Your task to perform on an android device: toggle javascript in the chrome app Image 0: 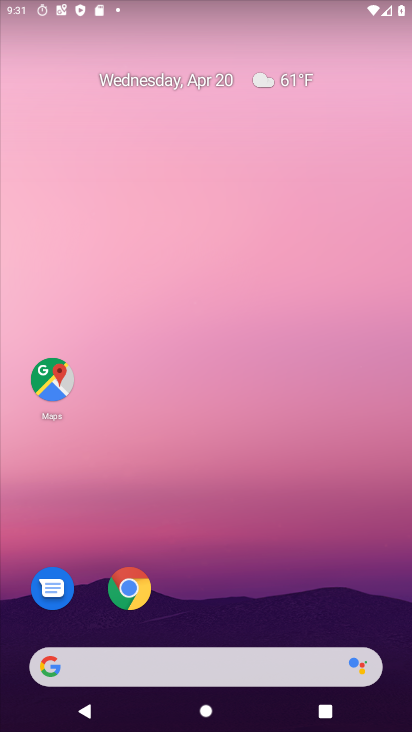
Step 0: drag from (224, 551) to (125, 38)
Your task to perform on an android device: toggle javascript in the chrome app Image 1: 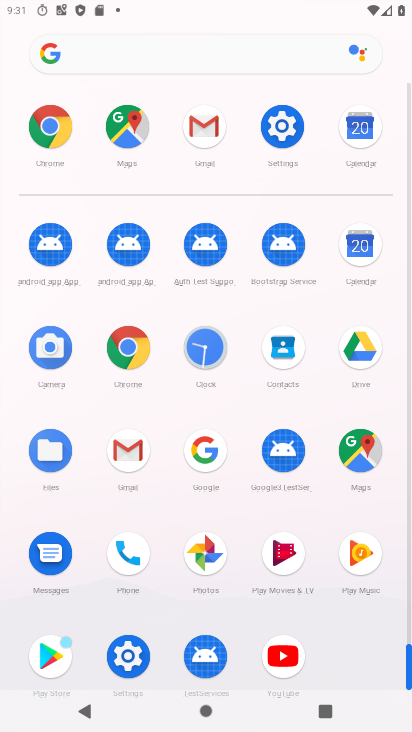
Step 1: click (48, 124)
Your task to perform on an android device: toggle javascript in the chrome app Image 2: 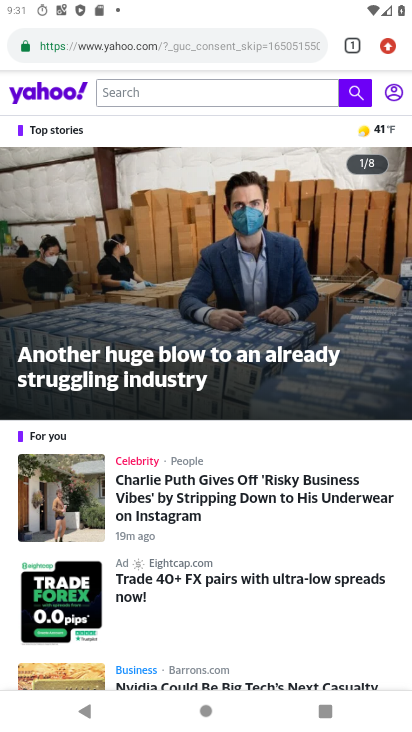
Step 2: drag from (384, 44) to (240, 596)
Your task to perform on an android device: toggle javascript in the chrome app Image 3: 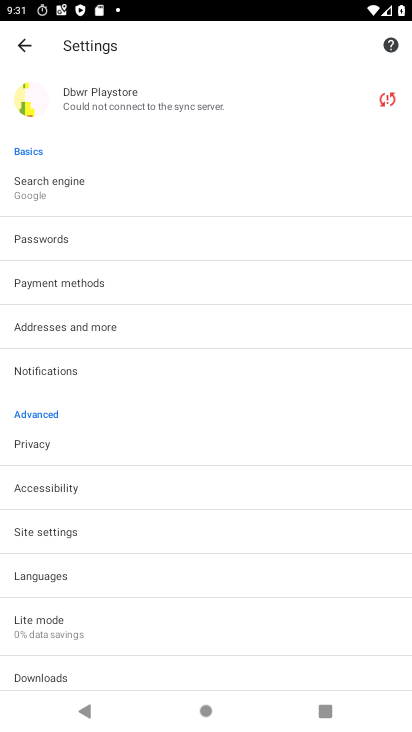
Step 3: click (58, 533)
Your task to perform on an android device: toggle javascript in the chrome app Image 4: 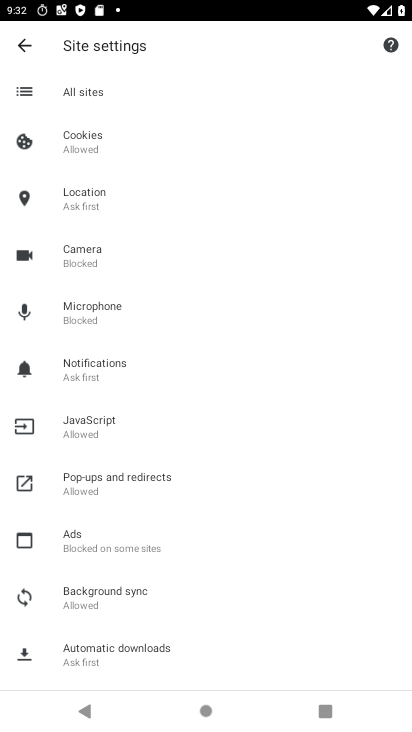
Step 4: click (106, 430)
Your task to perform on an android device: toggle javascript in the chrome app Image 5: 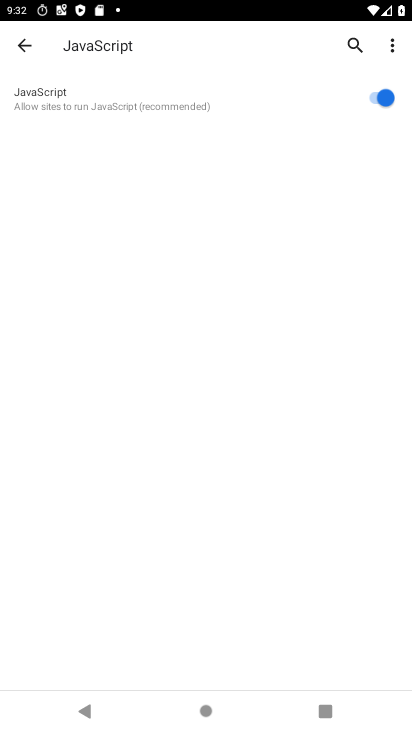
Step 5: click (375, 98)
Your task to perform on an android device: toggle javascript in the chrome app Image 6: 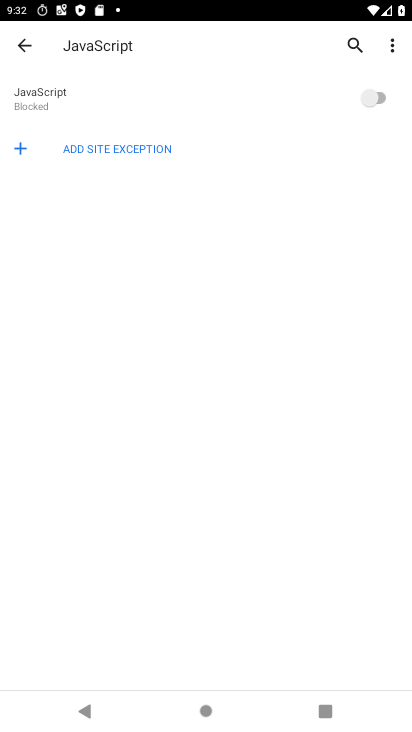
Step 6: task complete